Your task to perform on an android device: Open Wikipedia Image 0: 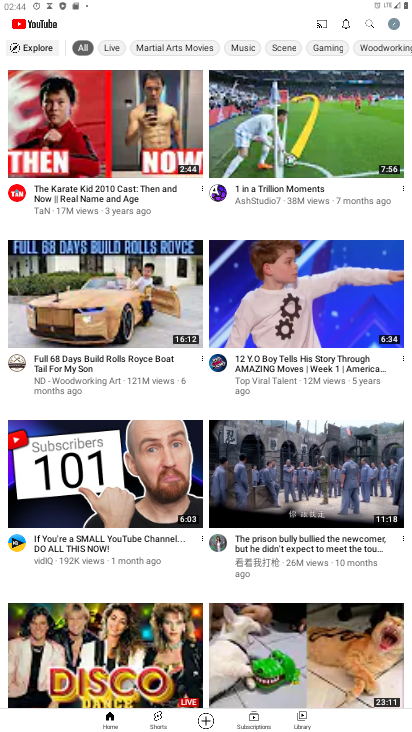
Step 0: press home button
Your task to perform on an android device: Open Wikipedia Image 1: 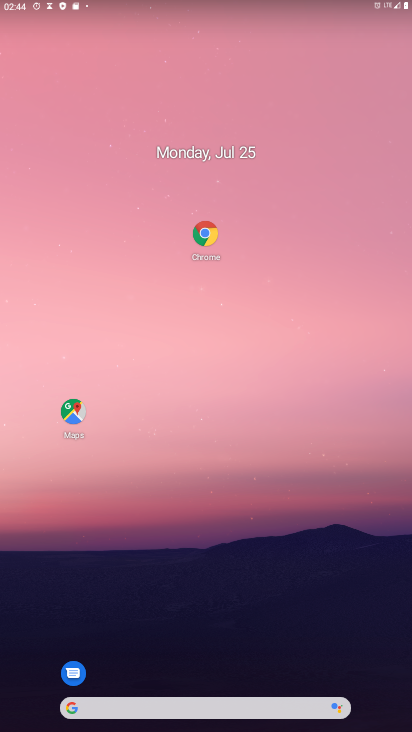
Step 1: drag from (279, 692) to (349, 7)
Your task to perform on an android device: Open Wikipedia Image 2: 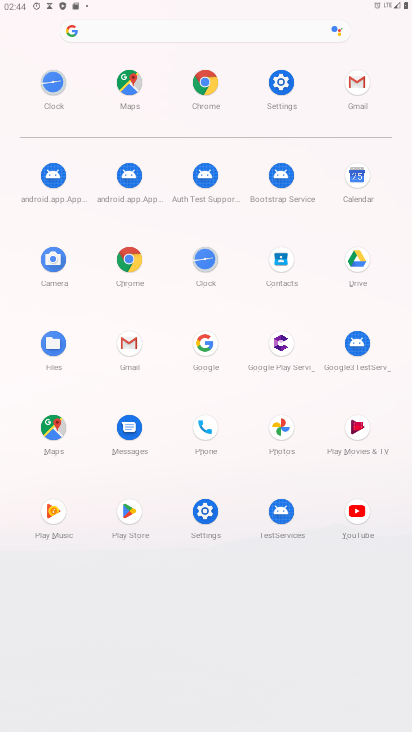
Step 2: click (127, 274)
Your task to perform on an android device: Open Wikipedia Image 3: 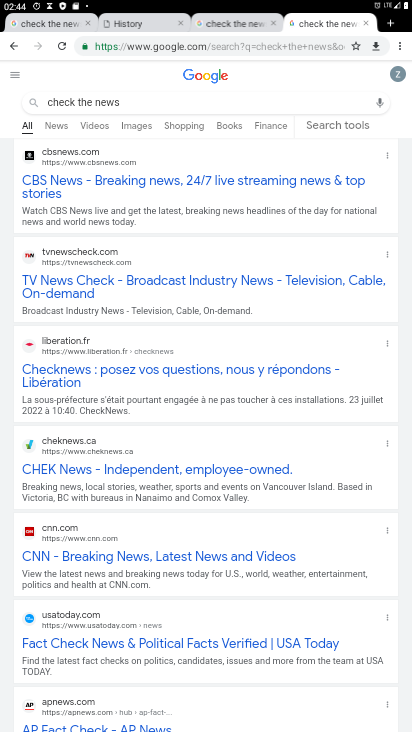
Step 3: click (198, 37)
Your task to perform on an android device: Open Wikipedia Image 4: 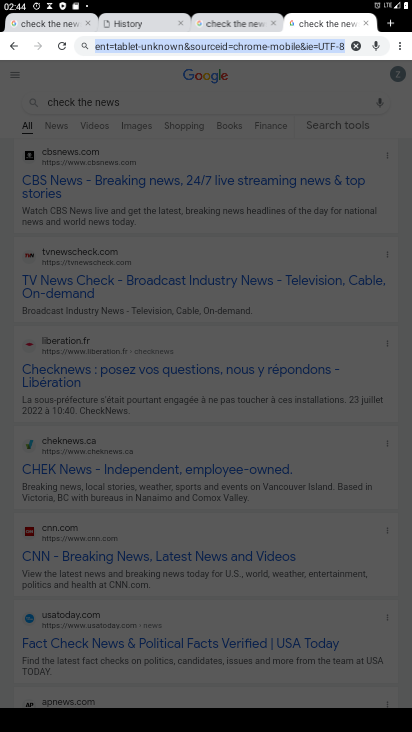
Step 4: type "wikipedia"
Your task to perform on an android device: Open Wikipedia Image 5: 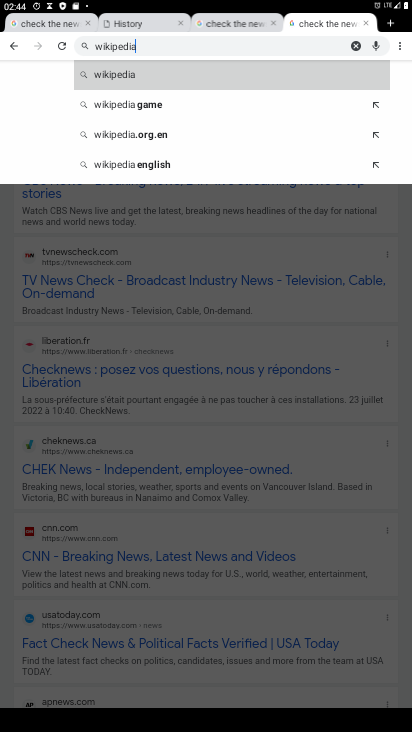
Step 5: click (297, 75)
Your task to perform on an android device: Open Wikipedia Image 6: 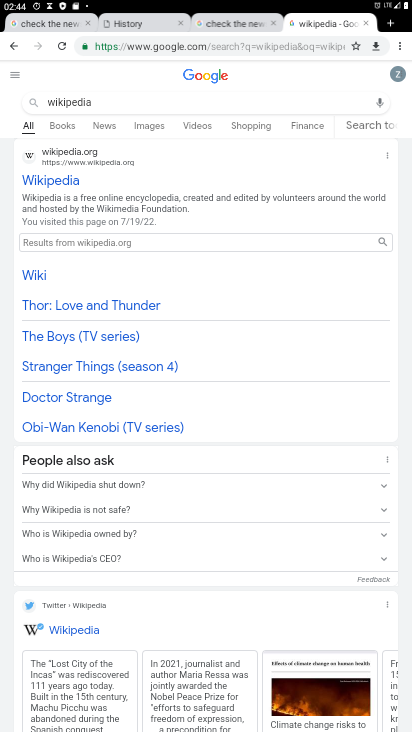
Step 6: task complete